Your task to perform on an android device: Open my contact list Image 0: 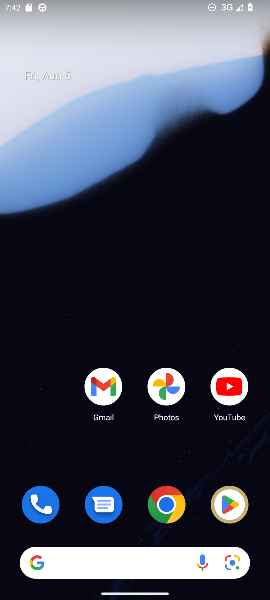
Step 0: drag from (136, 421) to (138, 153)
Your task to perform on an android device: Open my contact list Image 1: 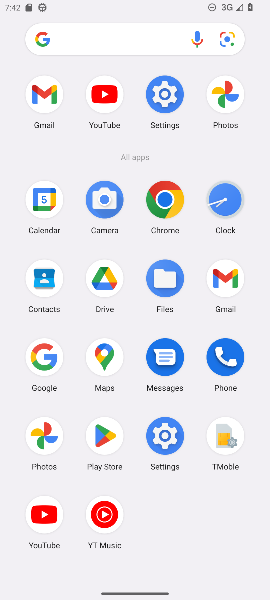
Step 1: click (47, 283)
Your task to perform on an android device: Open my contact list Image 2: 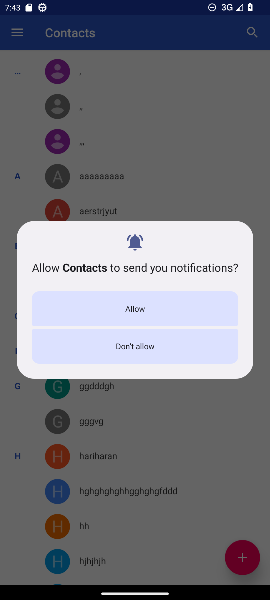
Step 2: click (145, 303)
Your task to perform on an android device: Open my contact list Image 3: 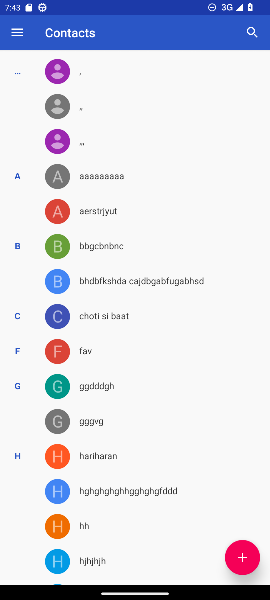
Step 3: task complete